Your task to perform on an android device: Open the calendar and show me this week's events Image 0: 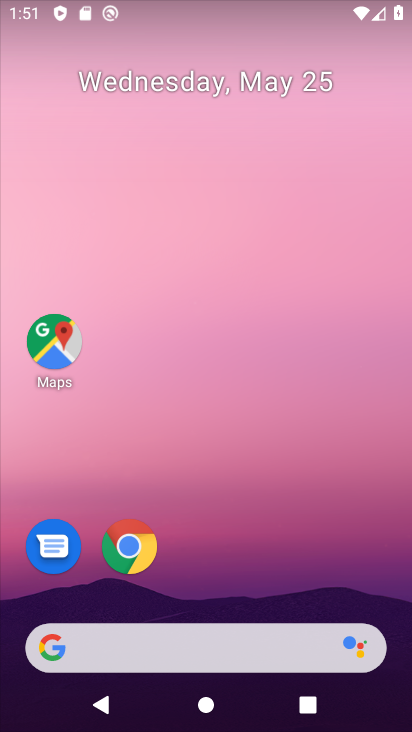
Step 0: drag from (253, 570) to (245, 259)
Your task to perform on an android device: Open the calendar and show me this week's events Image 1: 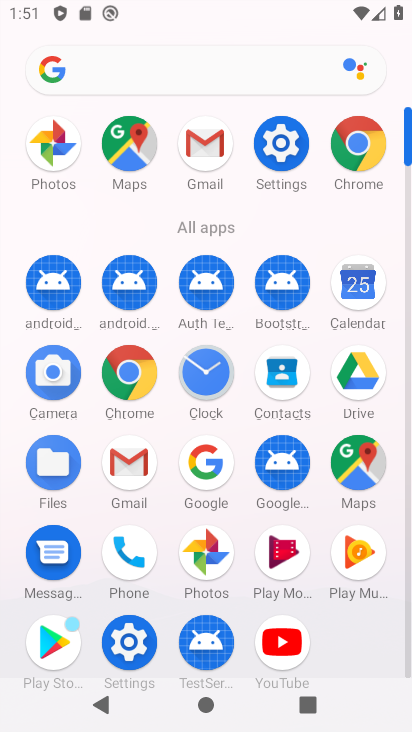
Step 1: click (356, 284)
Your task to perform on an android device: Open the calendar and show me this week's events Image 2: 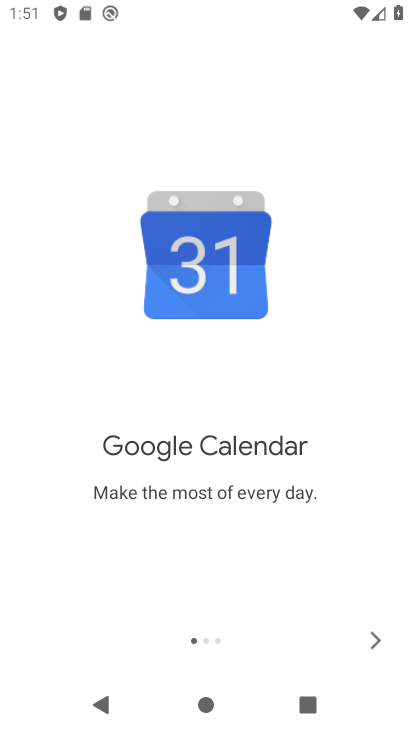
Step 2: click (379, 638)
Your task to perform on an android device: Open the calendar and show me this week's events Image 3: 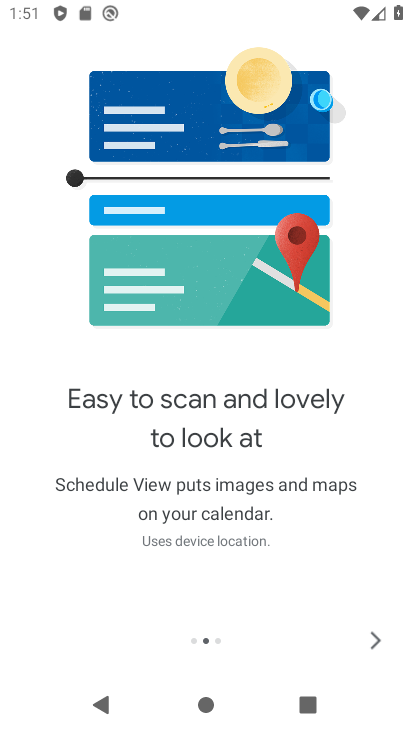
Step 3: click (379, 638)
Your task to perform on an android device: Open the calendar and show me this week's events Image 4: 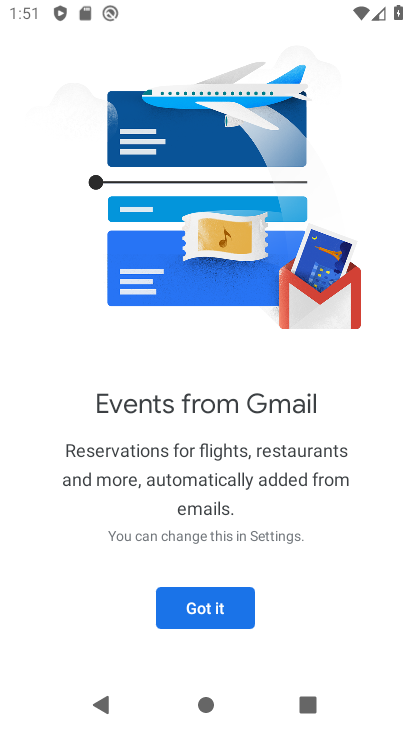
Step 4: click (208, 606)
Your task to perform on an android device: Open the calendar and show me this week's events Image 5: 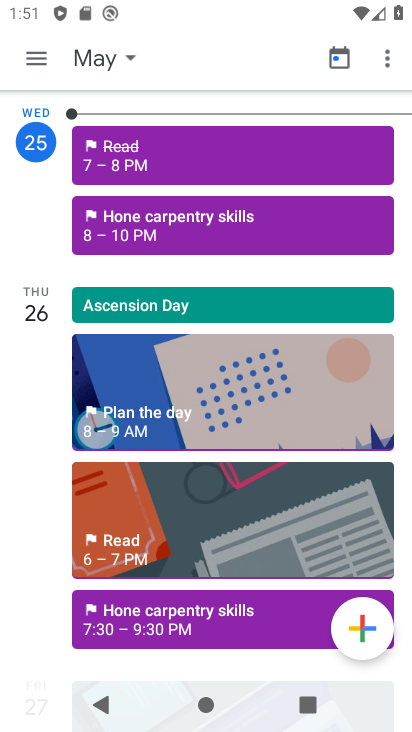
Step 5: click (128, 58)
Your task to perform on an android device: Open the calendar and show me this week's events Image 6: 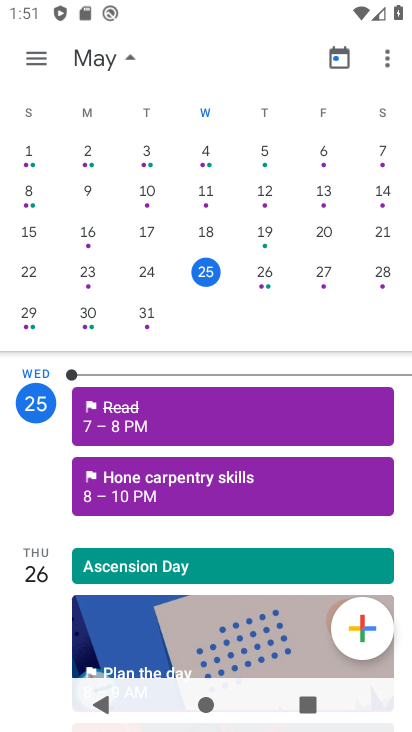
Step 6: click (273, 280)
Your task to perform on an android device: Open the calendar and show me this week's events Image 7: 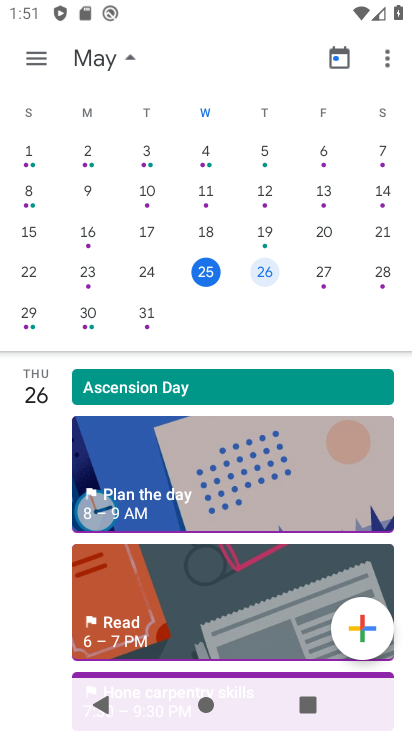
Step 7: click (41, 65)
Your task to perform on an android device: Open the calendar and show me this week's events Image 8: 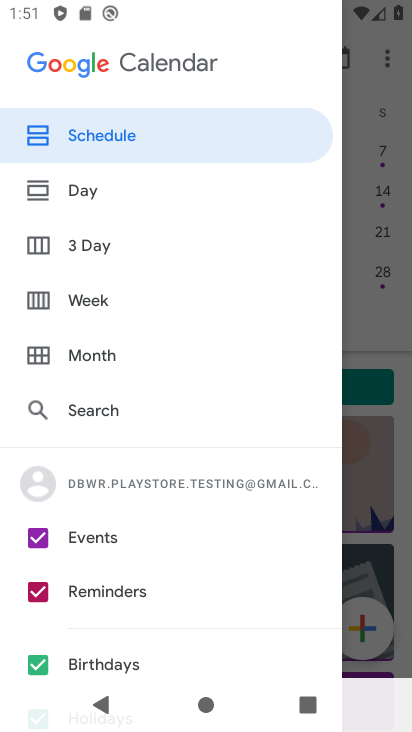
Step 8: click (97, 145)
Your task to perform on an android device: Open the calendar and show me this week's events Image 9: 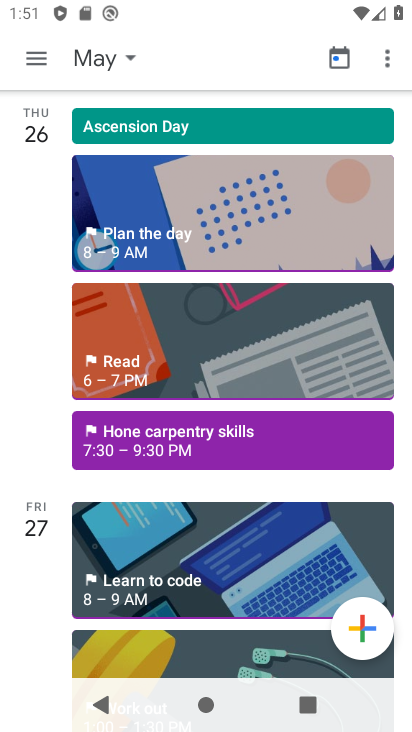
Step 9: task complete